Your task to perform on an android device: change the clock style Image 0: 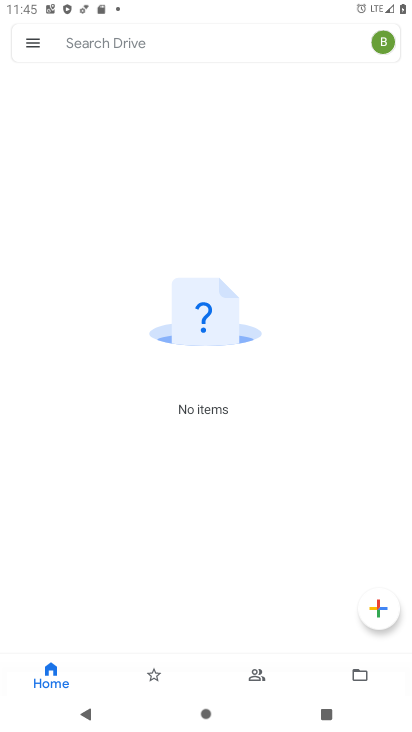
Step 0: press home button
Your task to perform on an android device: change the clock style Image 1: 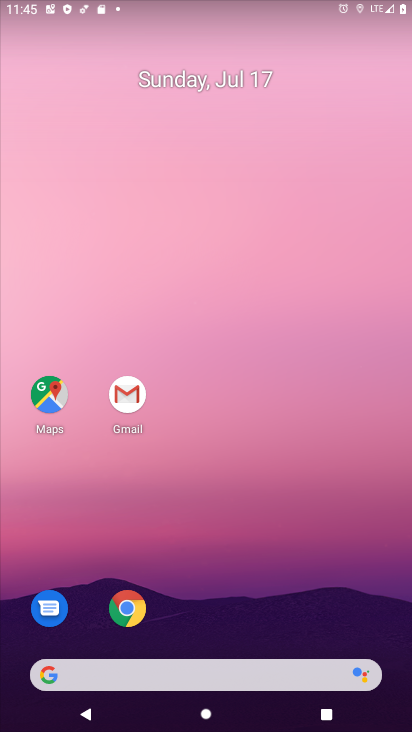
Step 1: drag from (209, 636) to (180, 4)
Your task to perform on an android device: change the clock style Image 2: 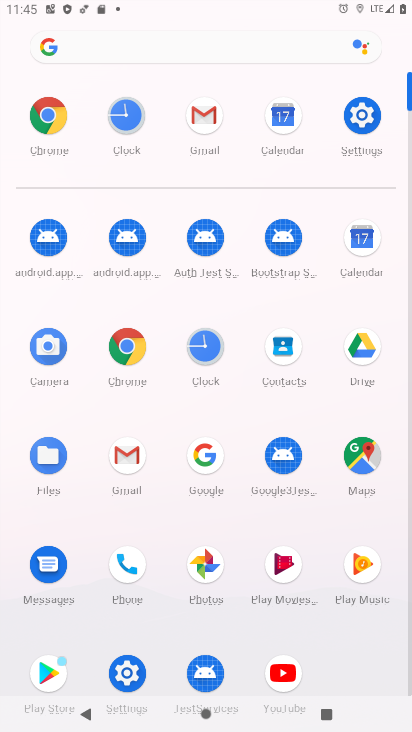
Step 2: click (213, 360)
Your task to perform on an android device: change the clock style Image 3: 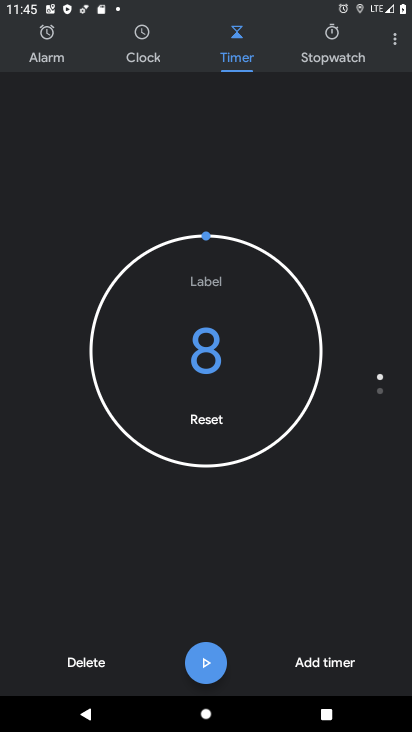
Step 3: click (144, 30)
Your task to perform on an android device: change the clock style Image 4: 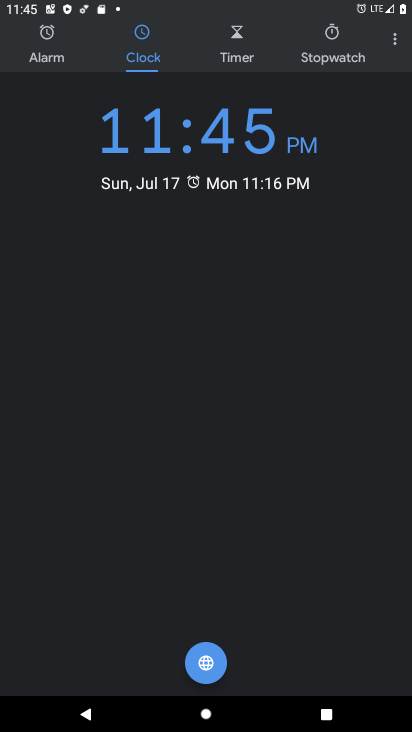
Step 4: click (401, 43)
Your task to perform on an android device: change the clock style Image 5: 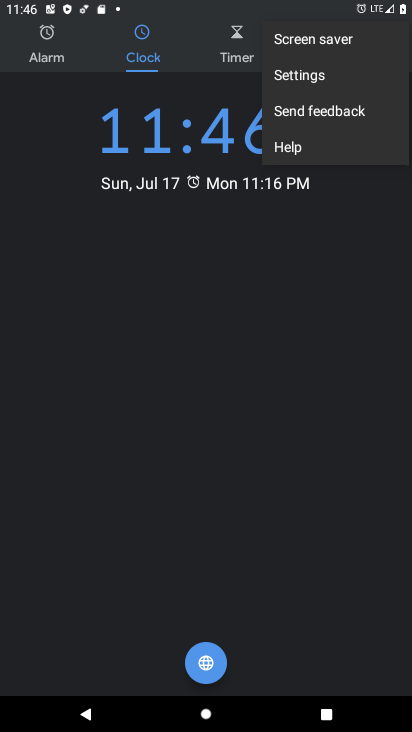
Step 5: click (289, 82)
Your task to perform on an android device: change the clock style Image 6: 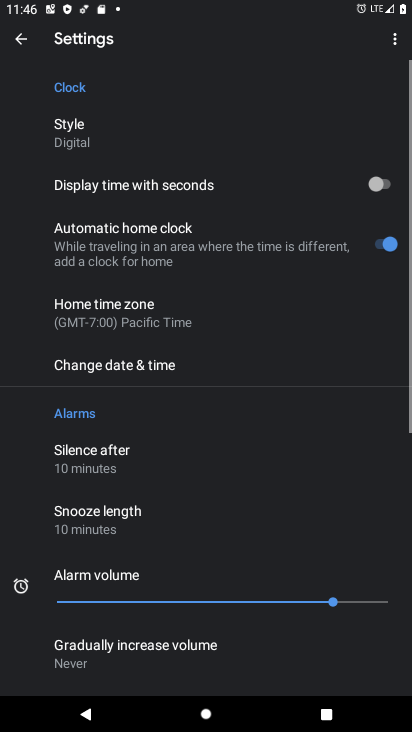
Step 6: click (125, 120)
Your task to perform on an android device: change the clock style Image 7: 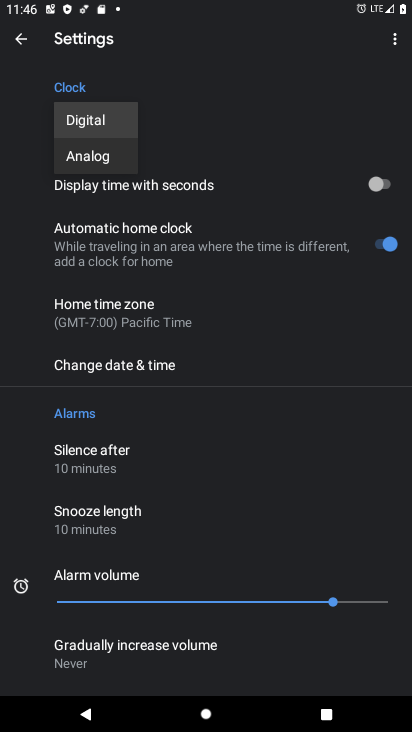
Step 7: click (106, 147)
Your task to perform on an android device: change the clock style Image 8: 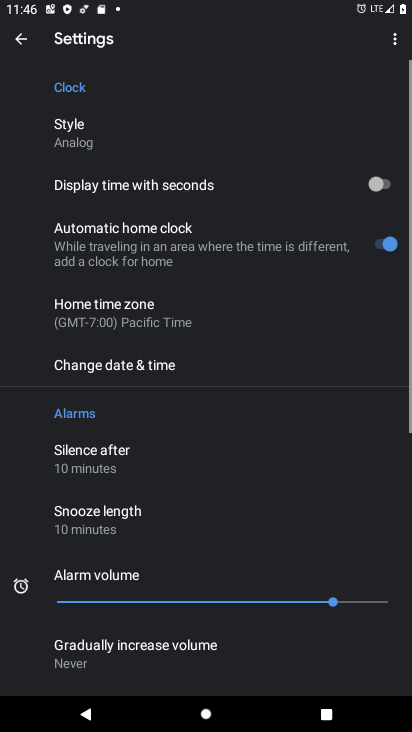
Step 8: task complete